Your task to perform on an android device: turn smart compose on in the gmail app Image 0: 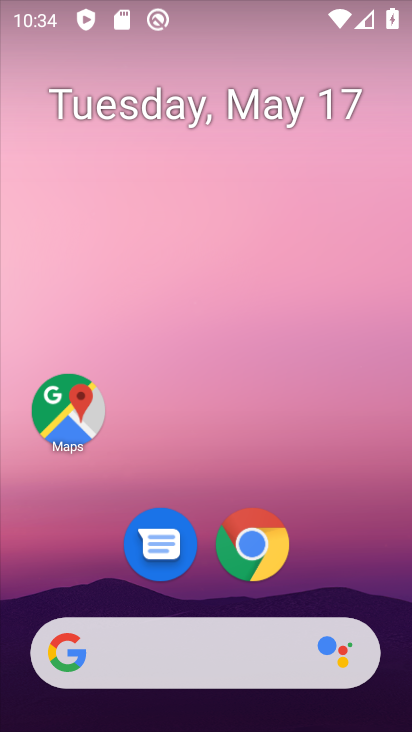
Step 0: drag from (292, 658) to (206, 71)
Your task to perform on an android device: turn smart compose on in the gmail app Image 1: 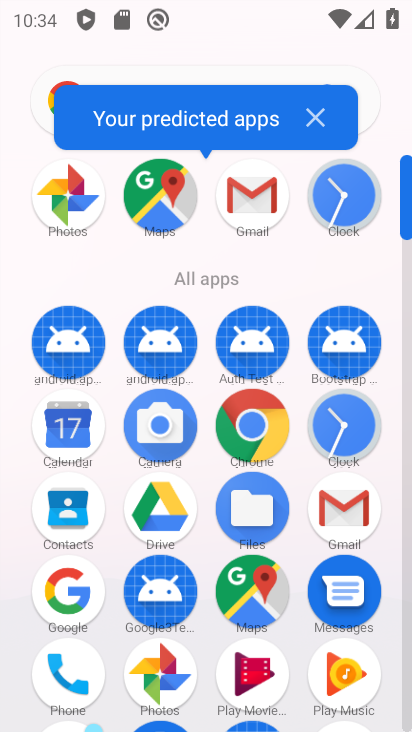
Step 1: click (342, 503)
Your task to perform on an android device: turn smart compose on in the gmail app Image 2: 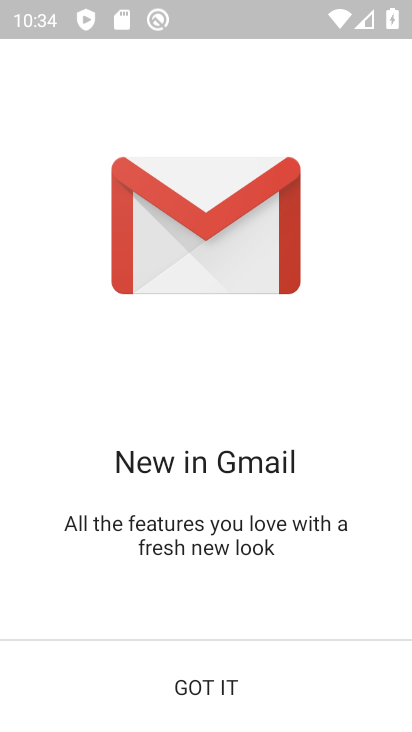
Step 2: click (276, 674)
Your task to perform on an android device: turn smart compose on in the gmail app Image 3: 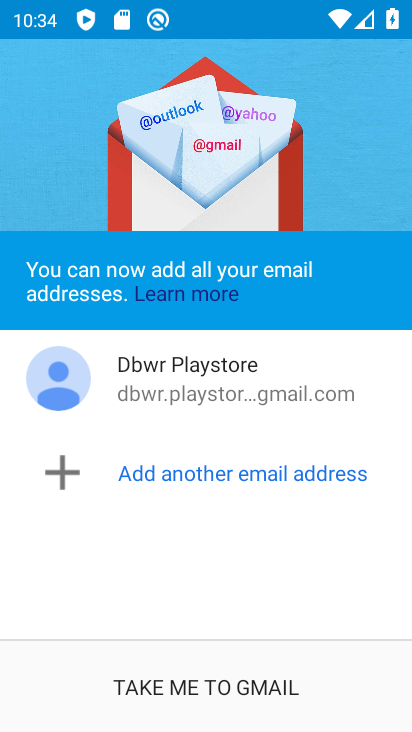
Step 3: click (283, 669)
Your task to perform on an android device: turn smart compose on in the gmail app Image 4: 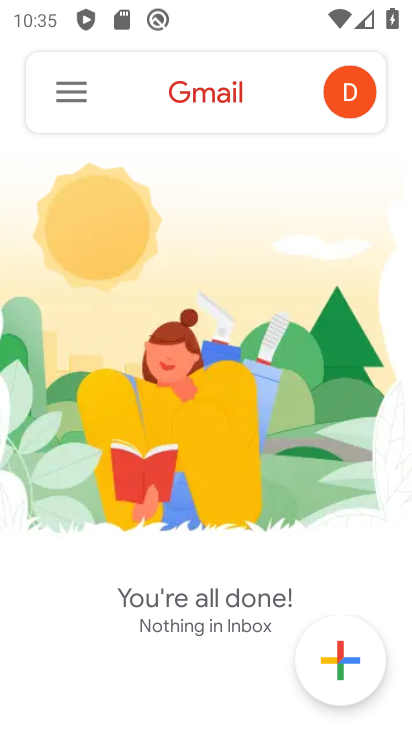
Step 4: click (49, 84)
Your task to perform on an android device: turn smart compose on in the gmail app Image 5: 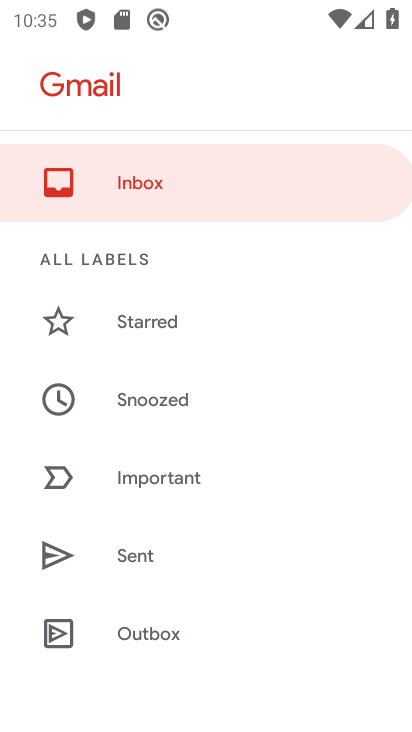
Step 5: drag from (254, 624) to (200, 116)
Your task to perform on an android device: turn smart compose on in the gmail app Image 6: 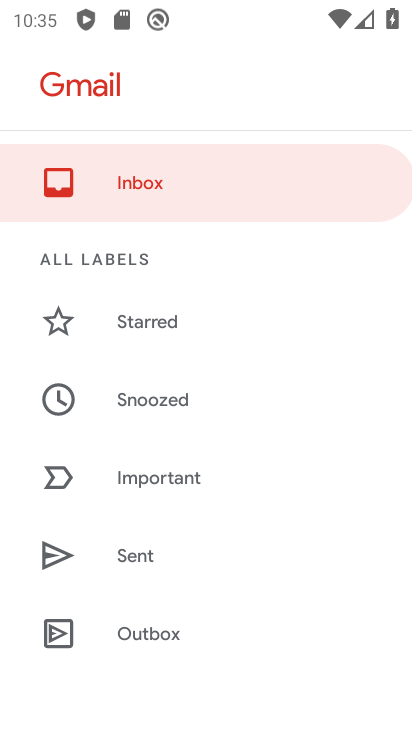
Step 6: drag from (258, 601) to (256, 185)
Your task to perform on an android device: turn smart compose on in the gmail app Image 7: 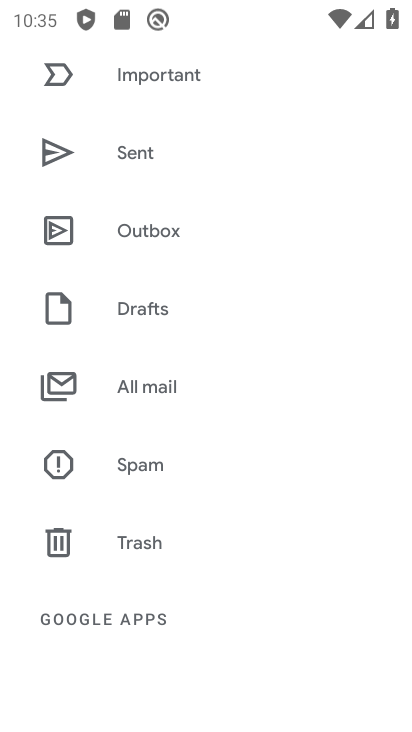
Step 7: drag from (234, 568) to (227, 210)
Your task to perform on an android device: turn smart compose on in the gmail app Image 8: 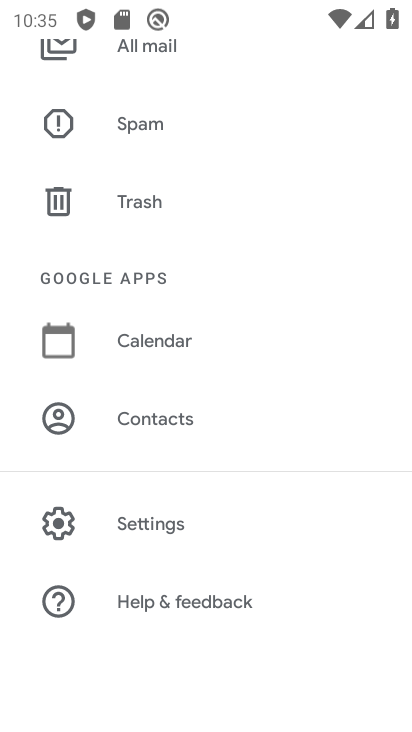
Step 8: click (177, 556)
Your task to perform on an android device: turn smart compose on in the gmail app Image 9: 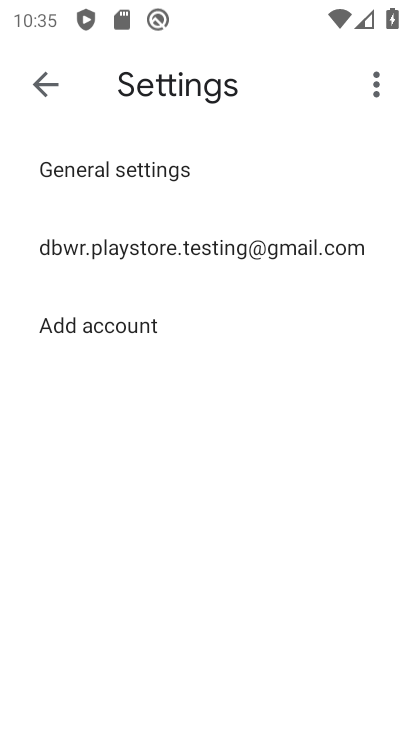
Step 9: click (216, 259)
Your task to perform on an android device: turn smart compose on in the gmail app Image 10: 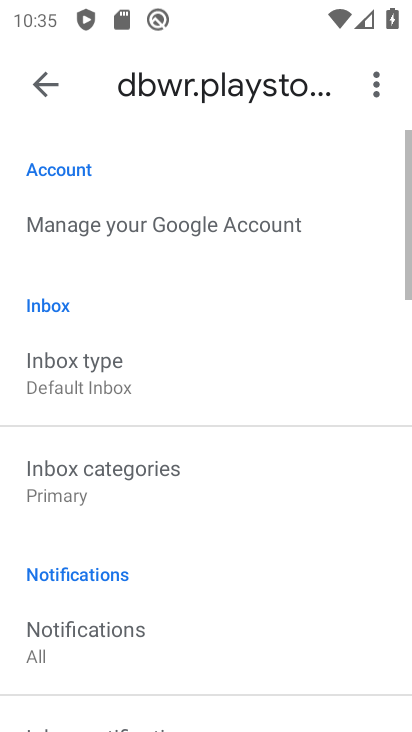
Step 10: drag from (203, 485) to (268, 223)
Your task to perform on an android device: turn smart compose on in the gmail app Image 11: 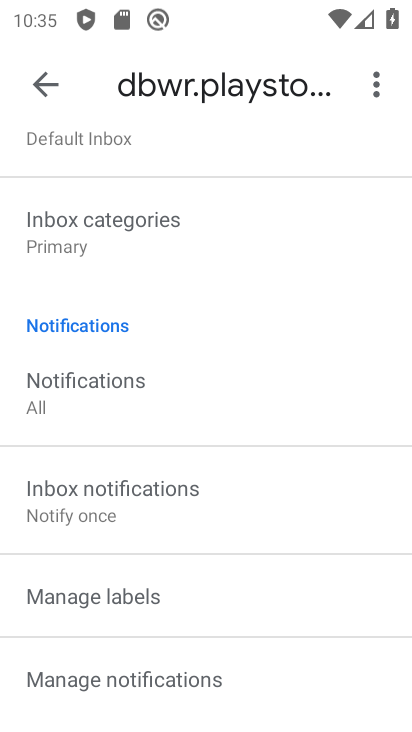
Step 11: drag from (172, 633) to (223, 234)
Your task to perform on an android device: turn smart compose on in the gmail app Image 12: 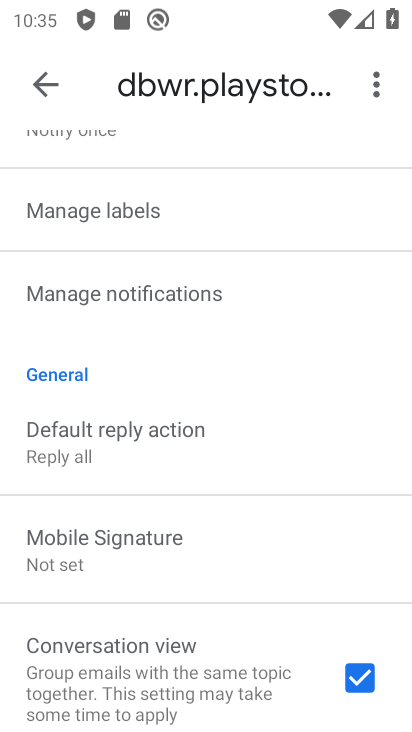
Step 12: drag from (148, 666) to (211, 331)
Your task to perform on an android device: turn smart compose on in the gmail app Image 13: 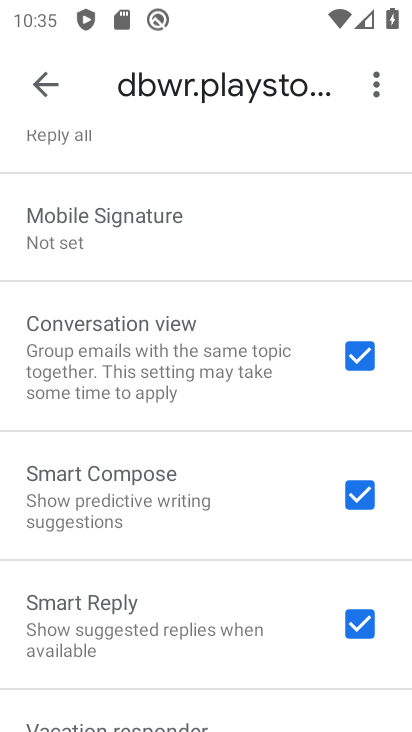
Step 13: press home button
Your task to perform on an android device: turn smart compose on in the gmail app Image 14: 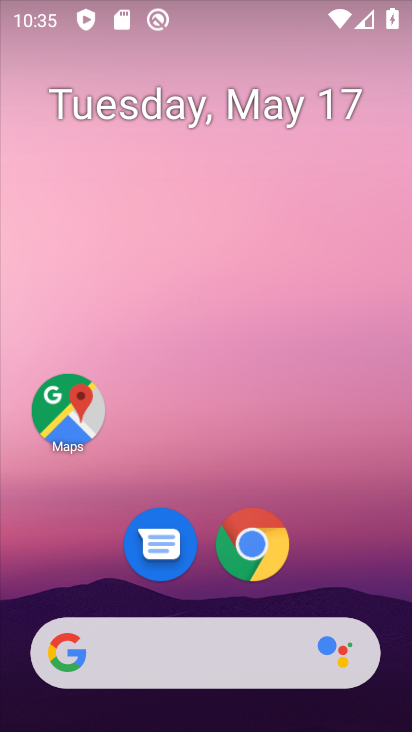
Step 14: drag from (406, 480) to (388, 238)
Your task to perform on an android device: turn smart compose on in the gmail app Image 15: 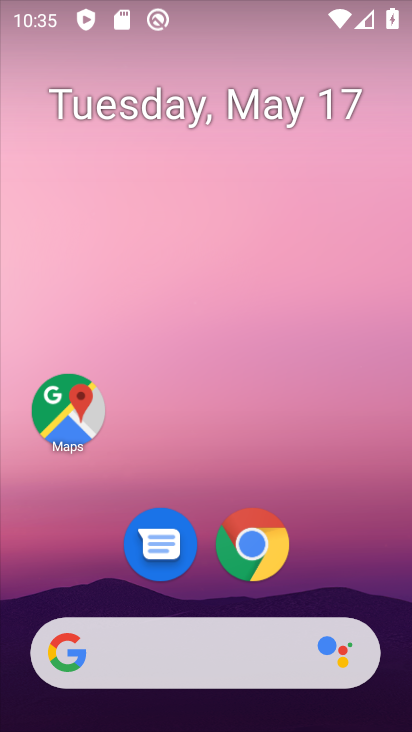
Step 15: drag from (298, 673) to (299, 285)
Your task to perform on an android device: turn smart compose on in the gmail app Image 16: 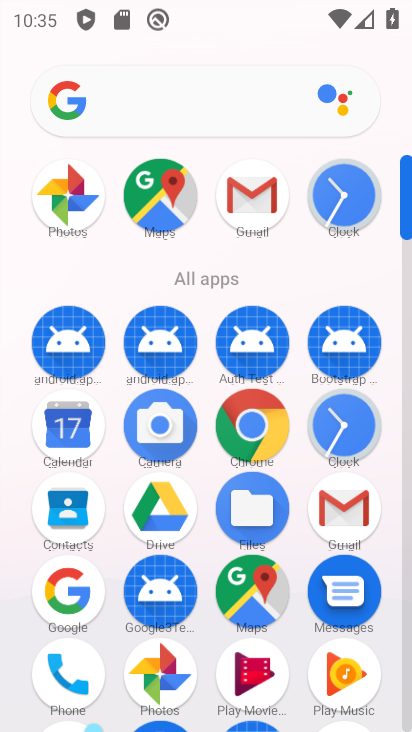
Step 16: click (349, 499)
Your task to perform on an android device: turn smart compose on in the gmail app Image 17: 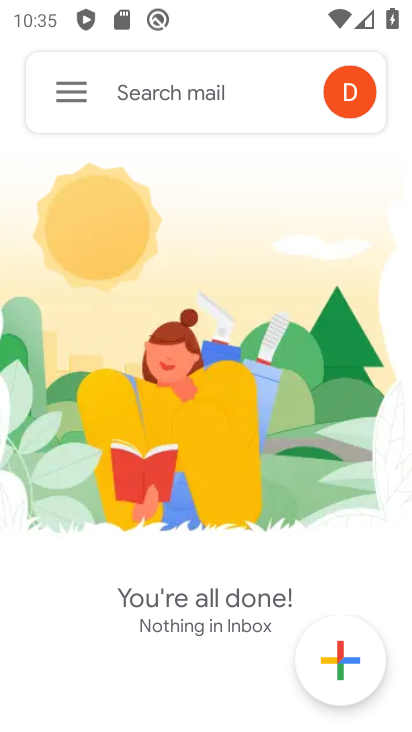
Step 17: click (68, 103)
Your task to perform on an android device: turn smart compose on in the gmail app Image 18: 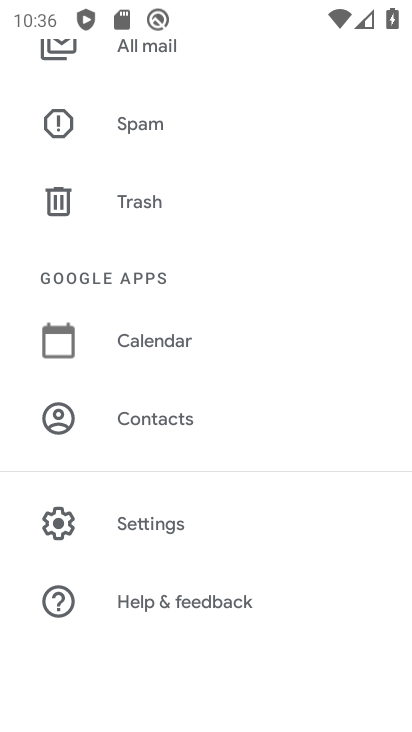
Step 18: task complete